Your task to perform on an android device: Go to privacy settings Image 0: 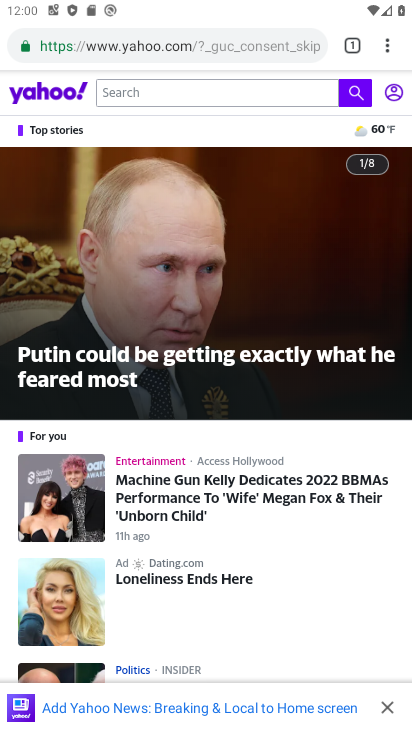
Step 0: press home button
Your task to perform on an android device: Go to privacy settings Image 1: 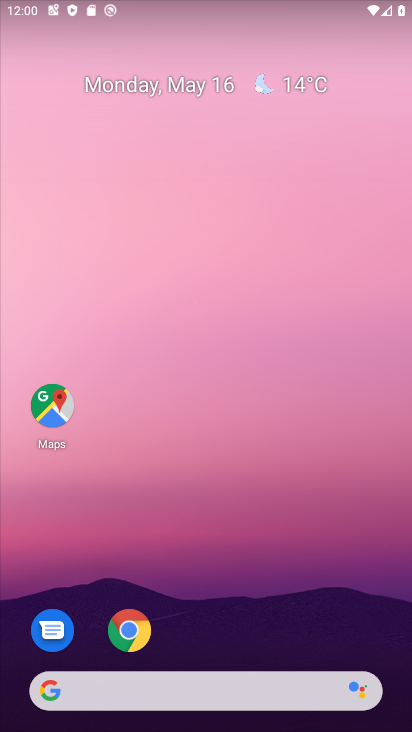
Step 1: drag from (249, 609) to (362, 14)
Your task to perform on an android device: Go to privacy settings Image 2: 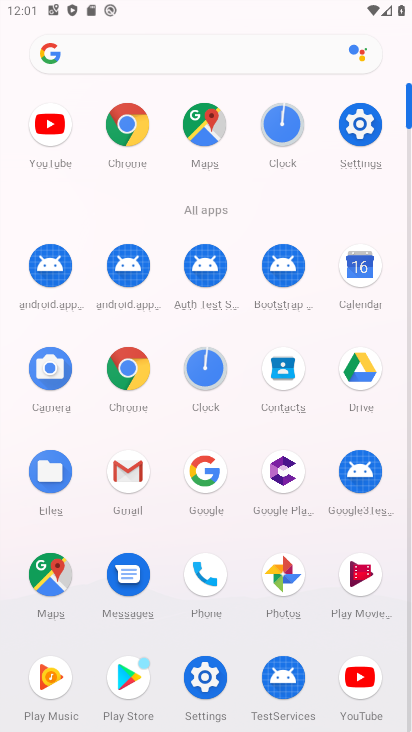
Step 2: click (363, 169)
Your task to perform on an android device: Go to privacy settings Image 3: 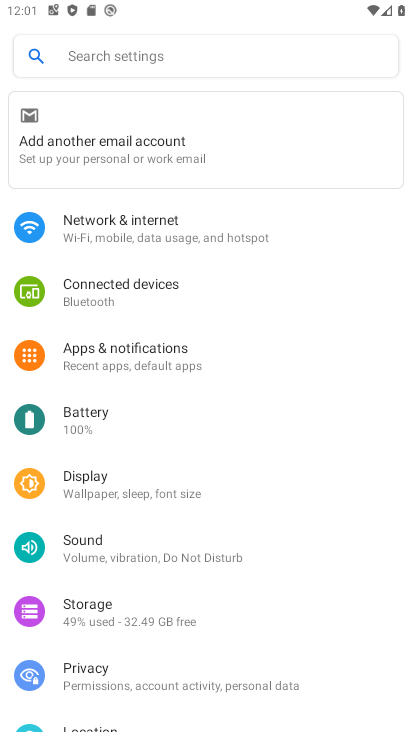
Step 3: drag from (276, 606) to (261, 290)
Your task to perform on an android device: Go to privacy settings Image 4: 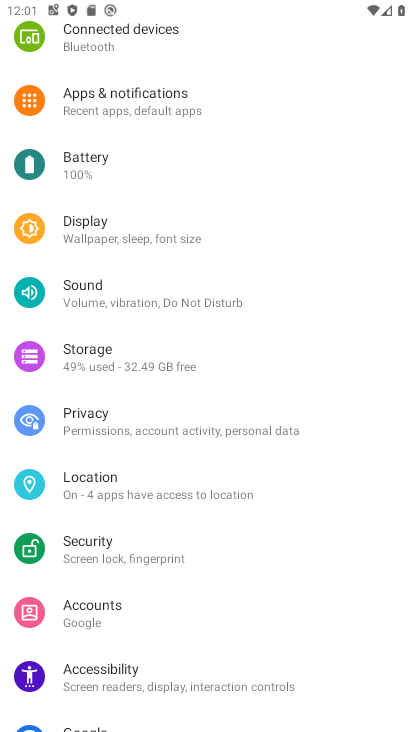
Step 4: click (217, 421)
Your task to perform on an android device: Go to privacy settings Image 5: 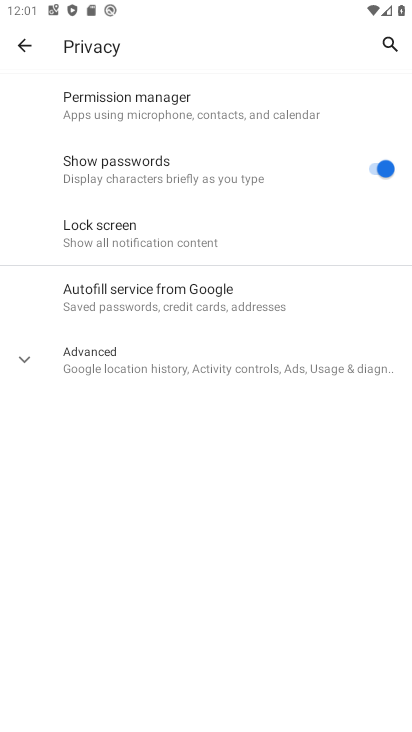
Step 5: task complete